Your task to perform on an android device: Go to Android settings Image 0: 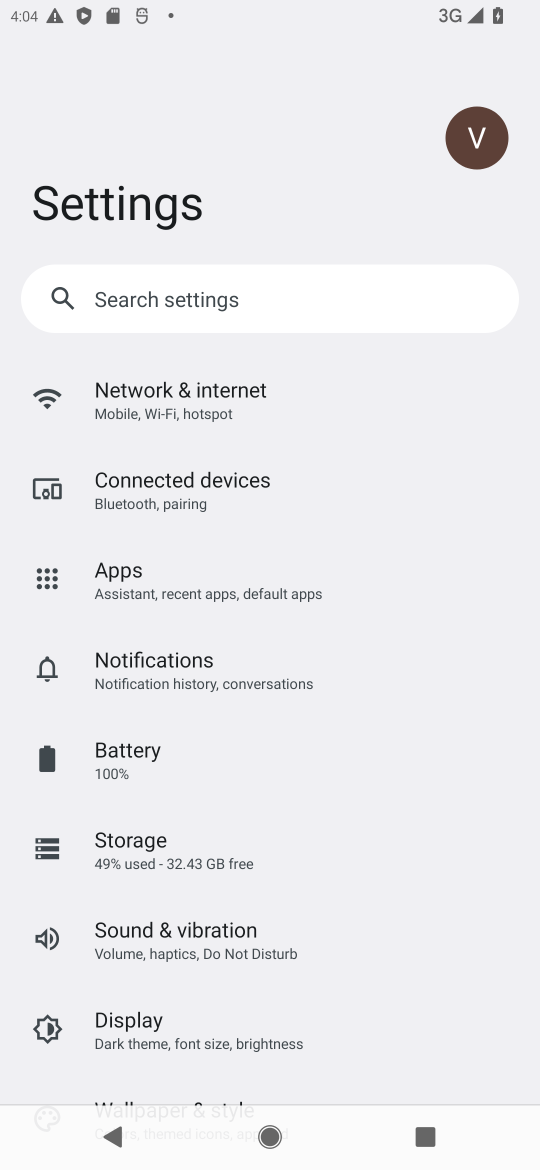
Step 0: task complete